Your task to perform on an android device: Open a new incognito window in Chrome Image 0: 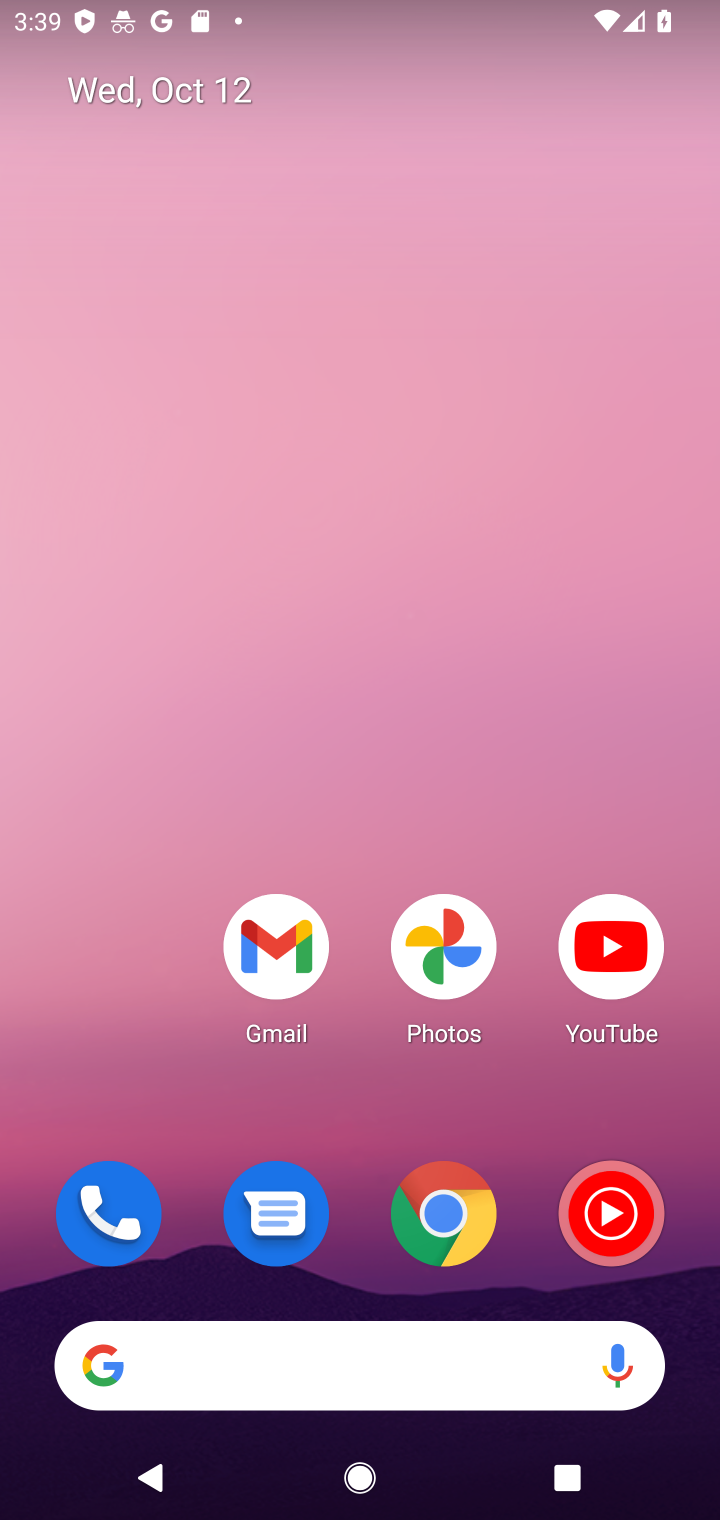
Step 0: click (436, 1216)
Your task to perform on an android device: Open a new incognito window in Chrome Image 1: 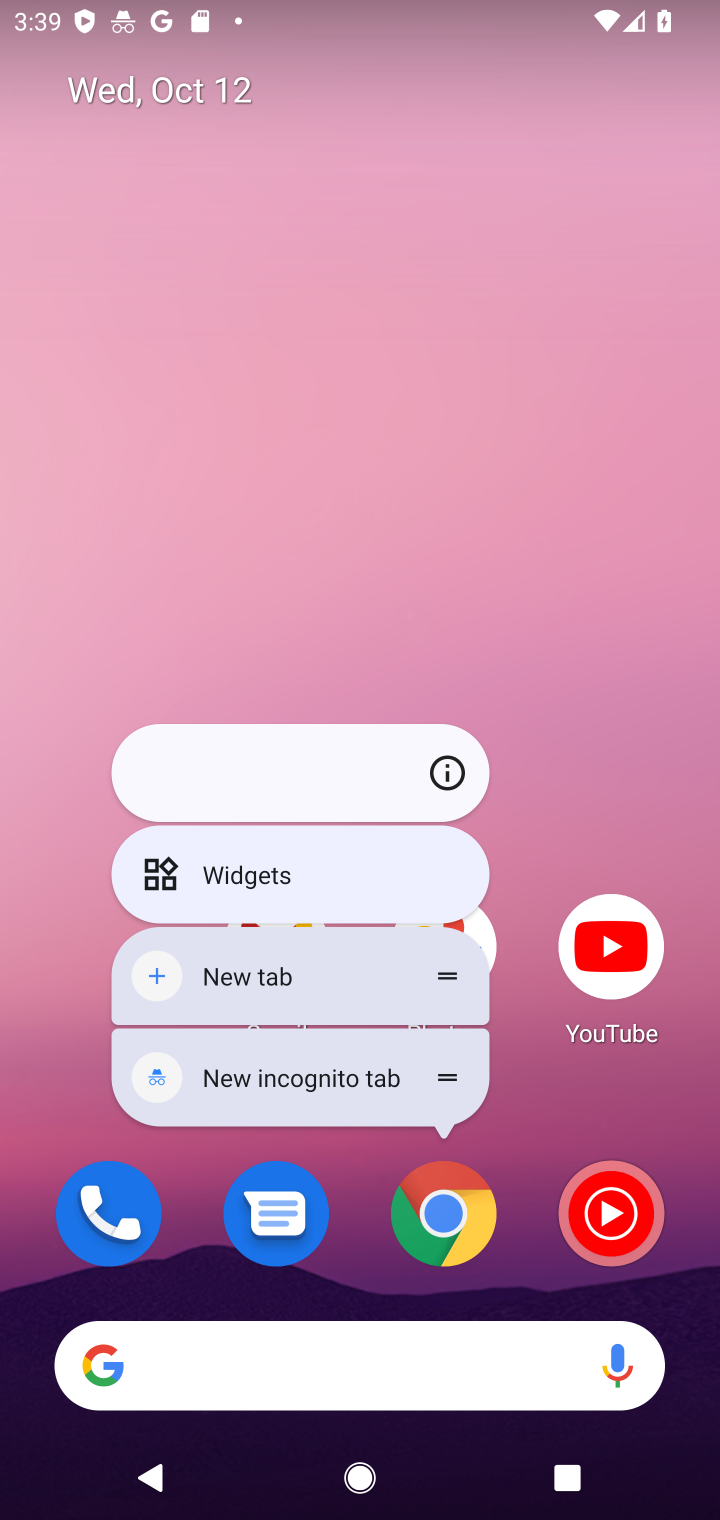
Step 1: click (456, 1226)
Your task to perform on an android device: Open a new incognito window in Chrome Image 2: 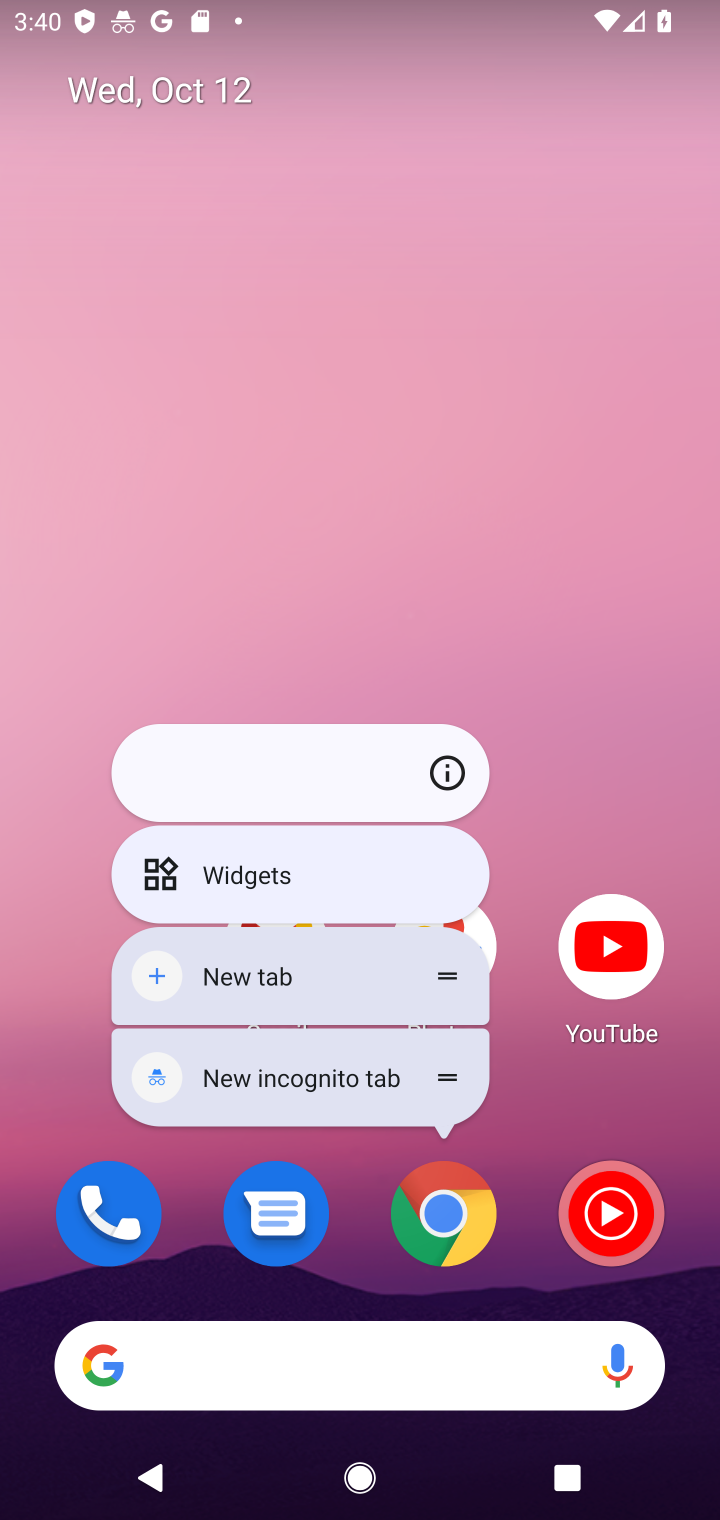
Step 2: click (398, 1211)
Your task to perform on an android device: Open a new incognito window in Chrome Image 3: 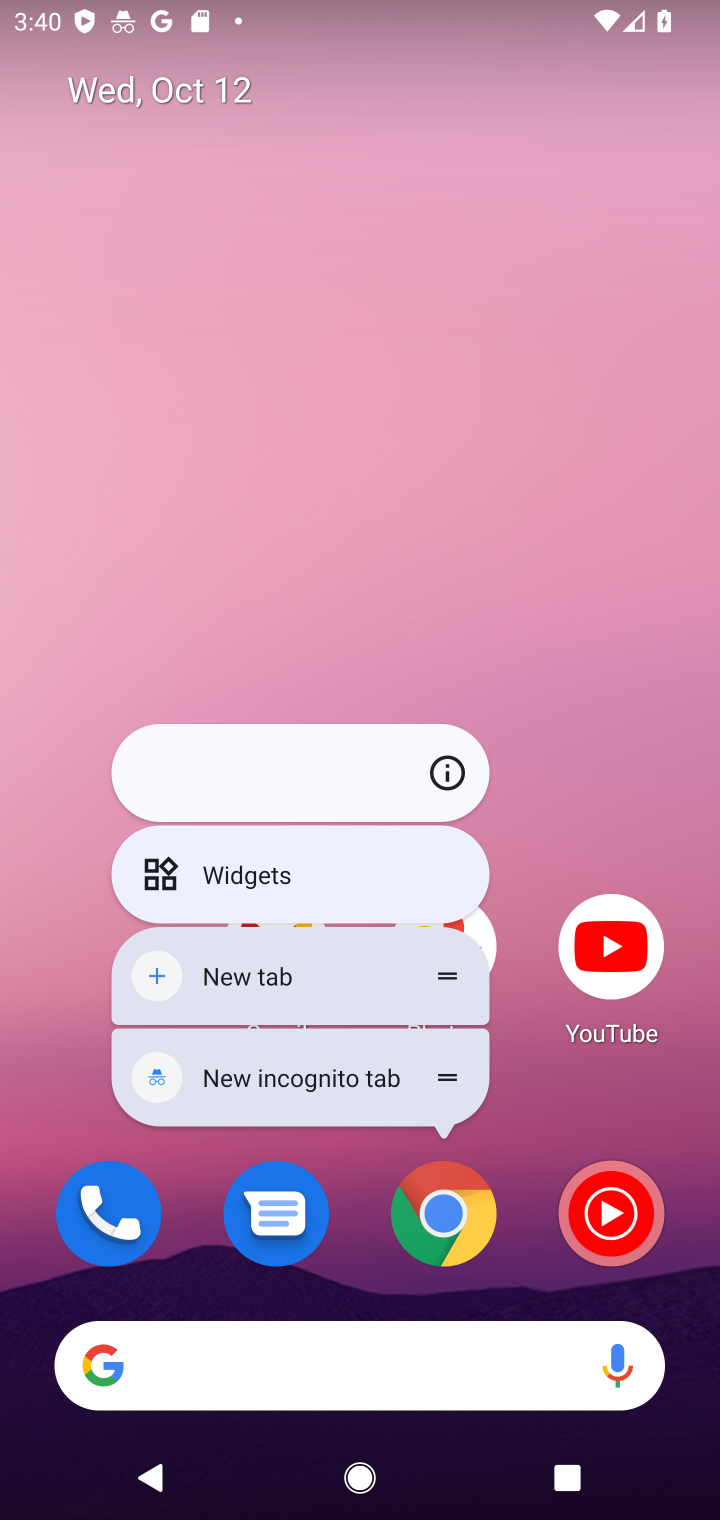
Step 3: click (444, 1233)
Your task to perform on an android device: Open a new incognito window in Chrome Image 4: 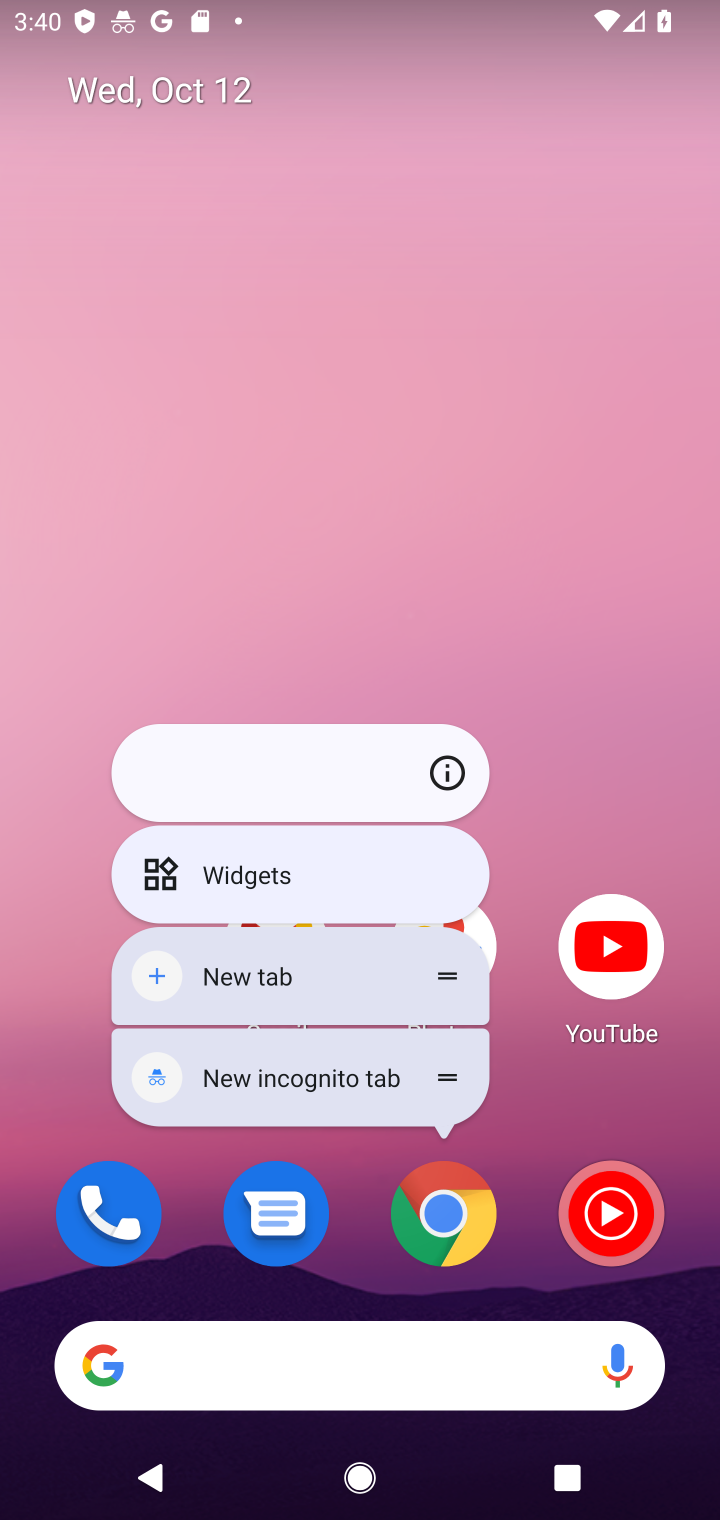
Step 4: click (434, 1187)
Your task to perform on an android device: Open a new incognito window in Chrome Image 5: 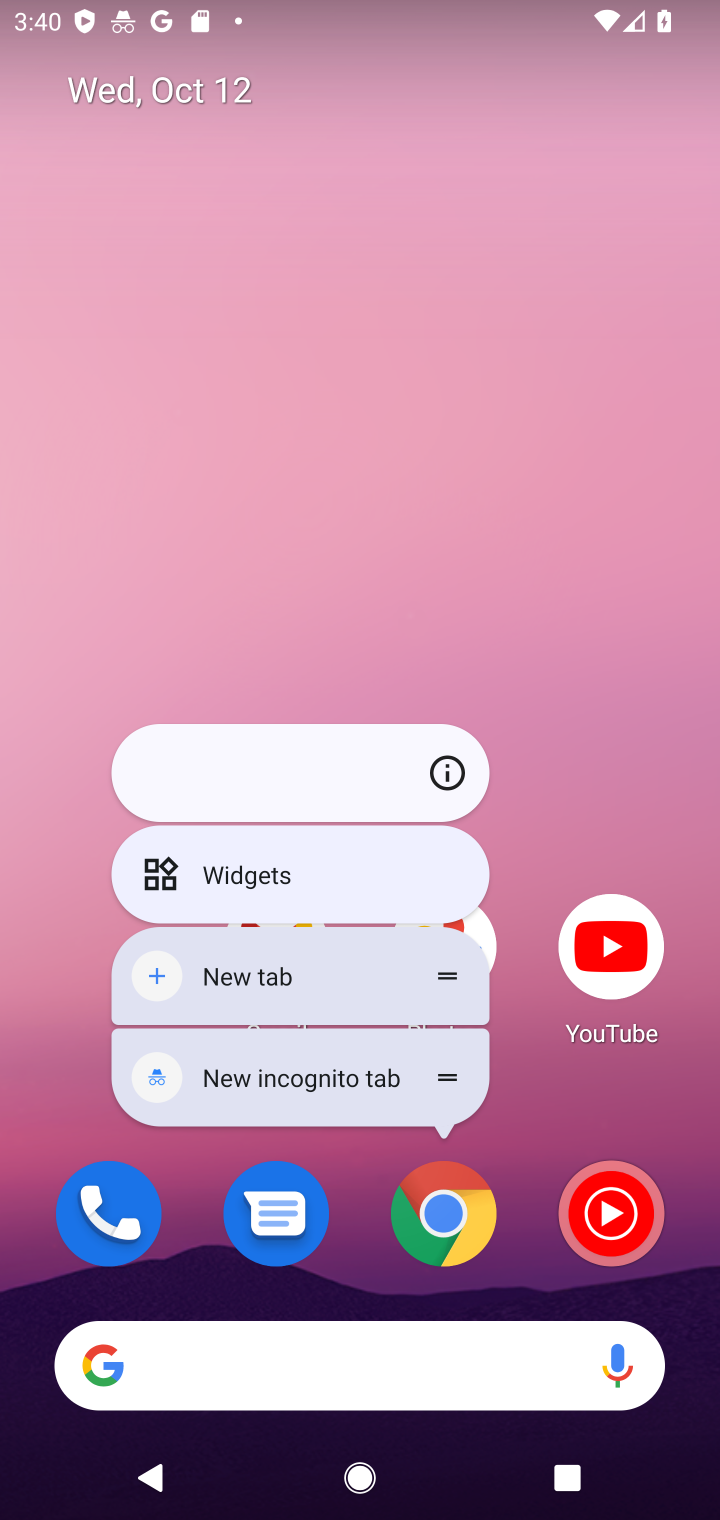
Step 5: click (454, 1221)
Your task to perform on an android device: Open a new incognito window in Chrome Image 6: 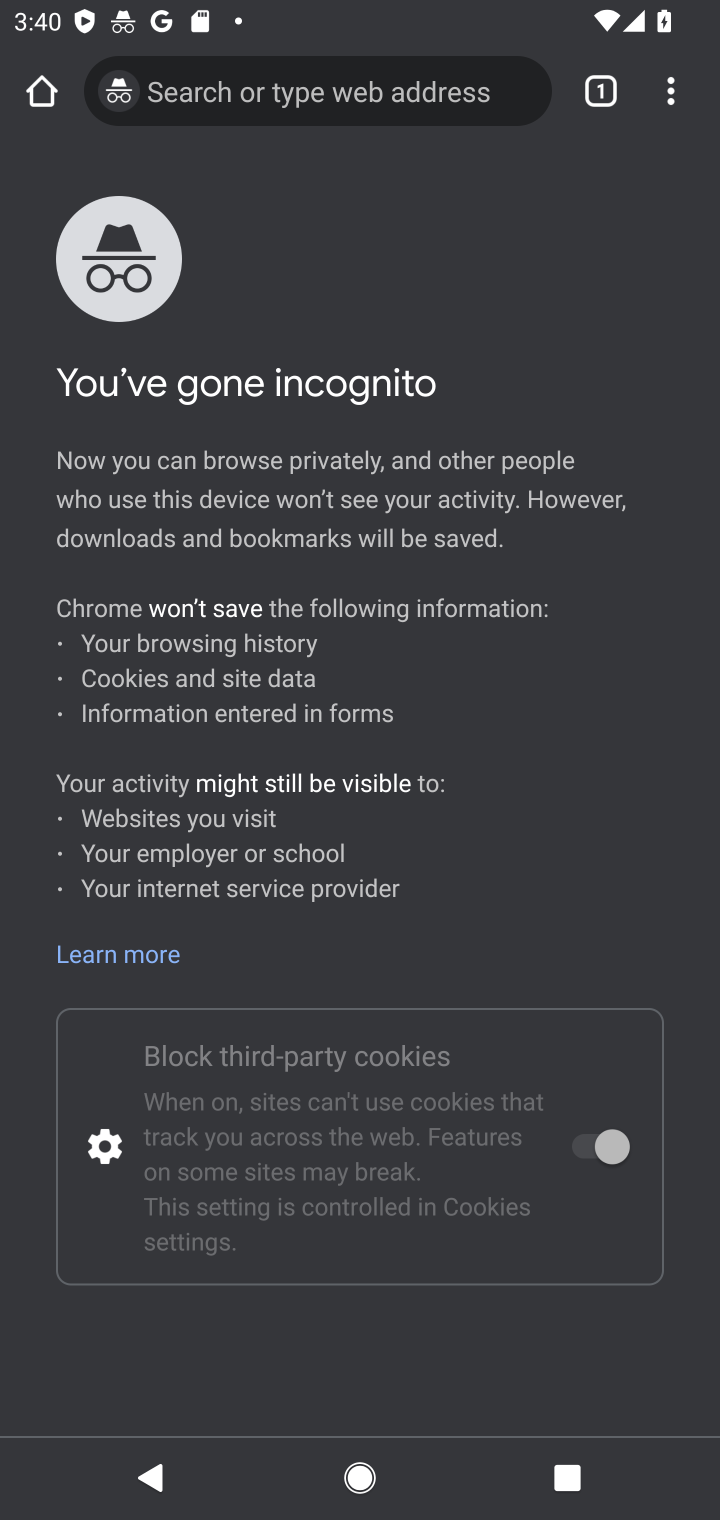
Step 6: task complete